Your task to perform on an android device: toggle show notifications on the lock screen Image 0: 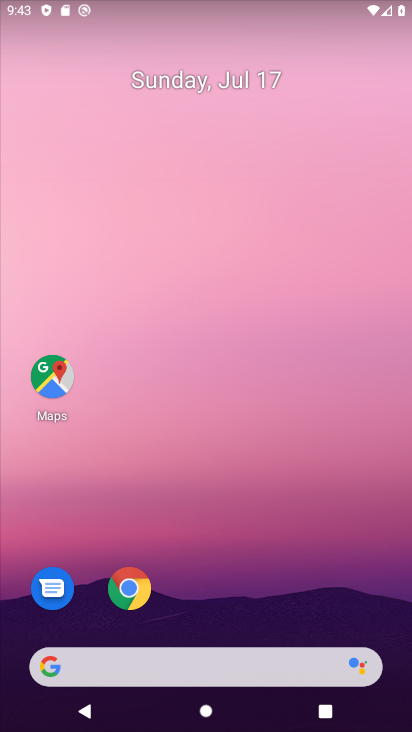
Step 0: drag from (206, 632) to (141, 77)
Your task to perform on an android device: toggle show notifications on the lock screen Image 1: 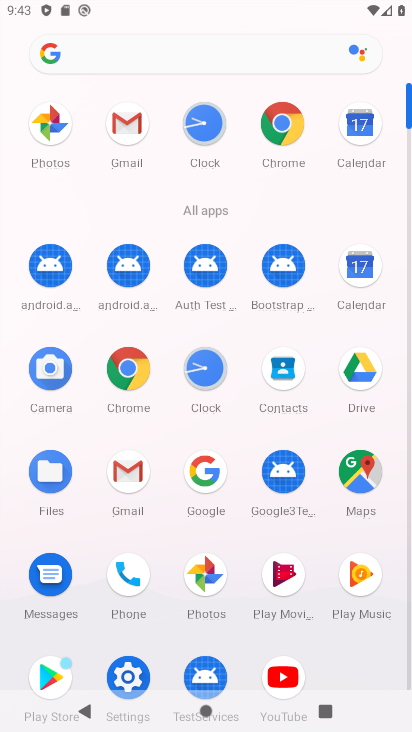
Step 1: click (126, 670)
Your task to perform on an android device: toggle show notifications on the lock screen Image 2: 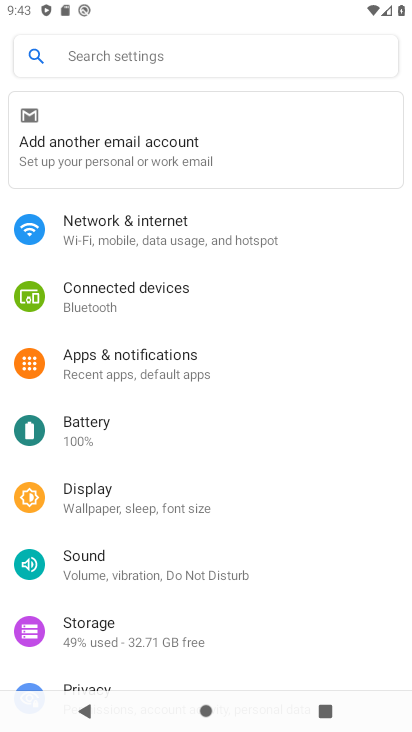
Step 2: click (92, 353)
Your task to perform on an android device: toggle show notifications on the lock screen Image 3: 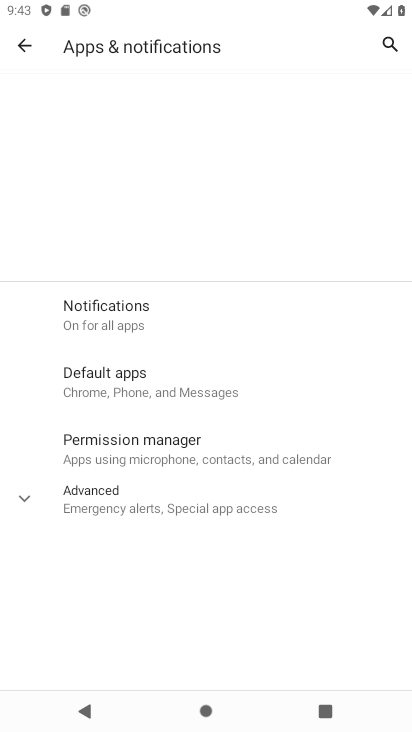
Step 3: click (103, 308)
Your task to perform on an android device: toggle show notifications on the lock screen Image 4: 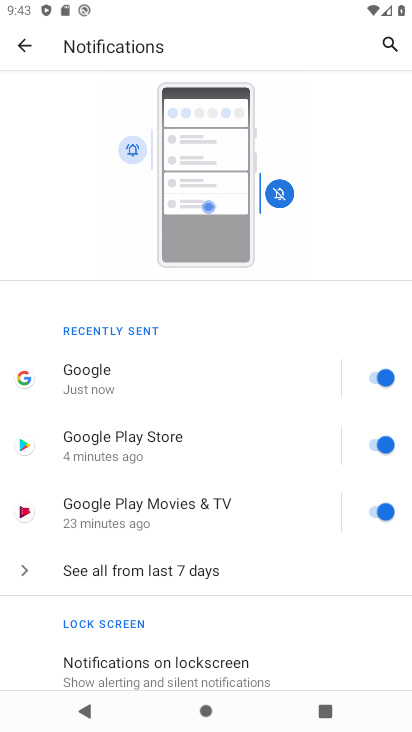
Step 4: click (179, 660)
Your task to perform on an android device: toggle show notifications on the lock screen Image 5: 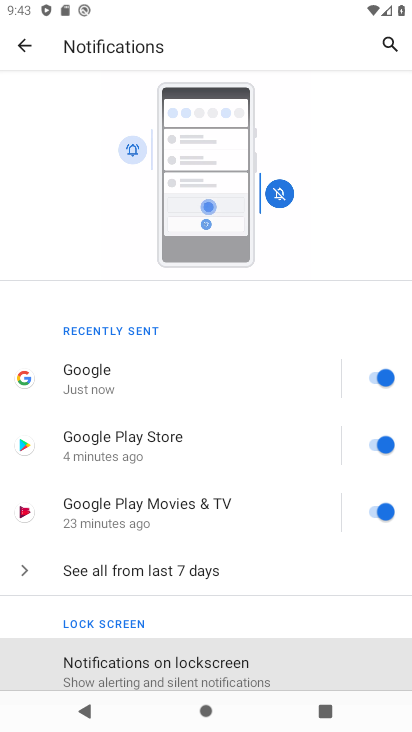
Step 5: click (176, 655)
Your task to perform on an android device: toggle show notifications on the lock screen Image 6: 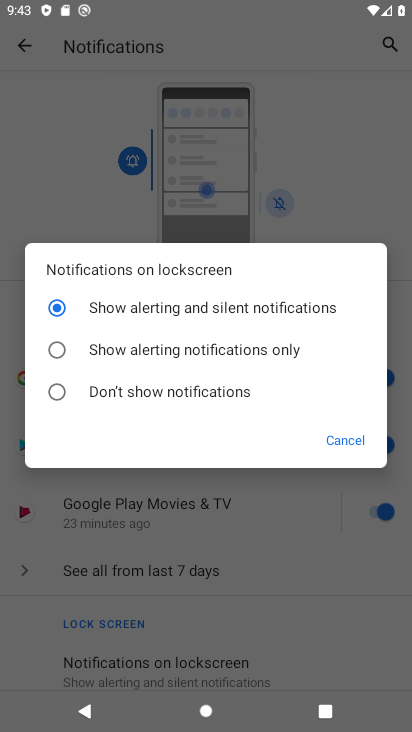
Step 6: click (56, 305)
Your task to perform on an android device: toggle show notifications on the lock screen Image 7: 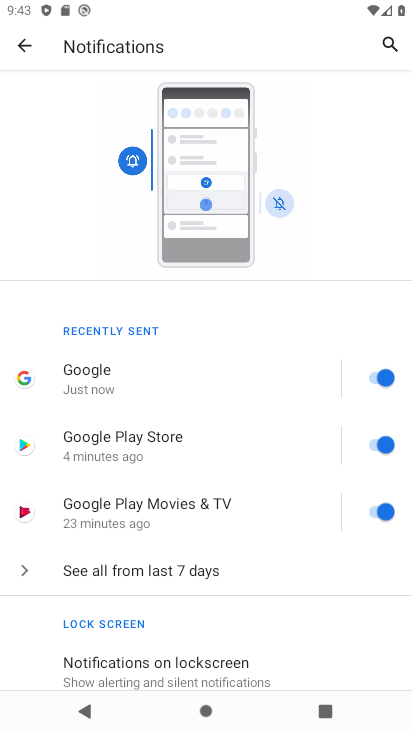
Step 7: task complete